Your task to perform on an android device: Go to Yahoo.com Image 0: 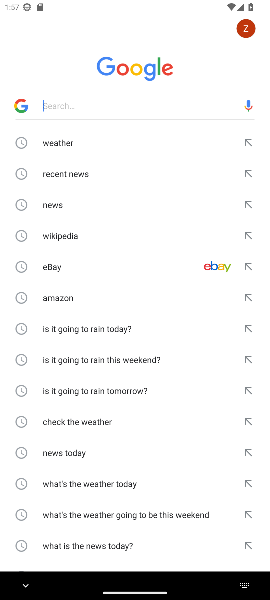
Step 0: type "yahoo.com"
Your task to perform on an android device: Go to Yahoo.com Image 1: 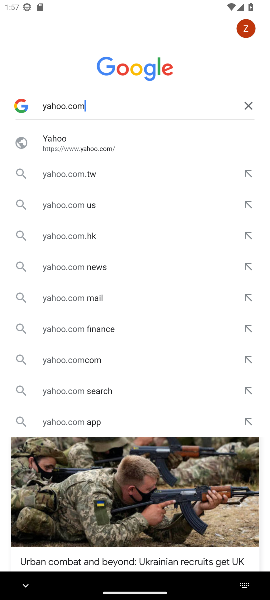
Step 1: click (66, 133)
Your task to perform on an android device: Go to Yahoo.com Image 2: 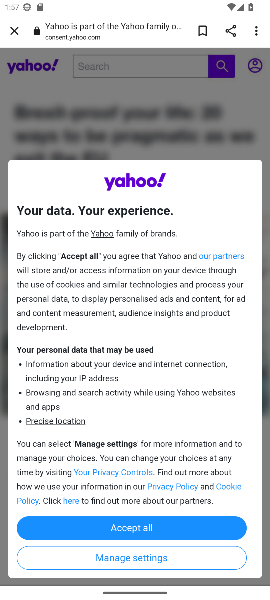
Step 2: click (139, 527)
Your task to perform on an android device: Go to Yahoo.com Image 3: 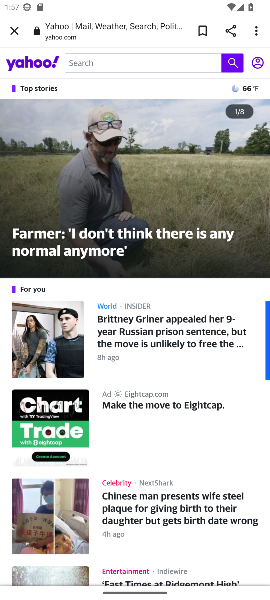
Step 3: task complete